Your task to perform on an android device: Search for Italian restaurants on Maps Image 0: 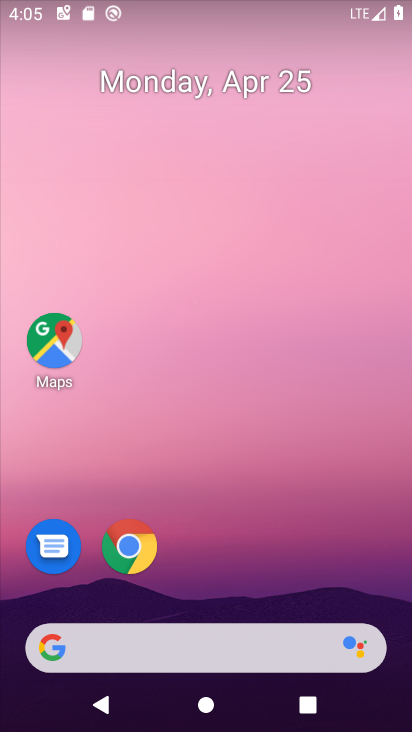
Step 0: drag from (289, 549) to (404, 54)
Your task to perform on an android device: Search for Italian restaurants on Maps Image 1: 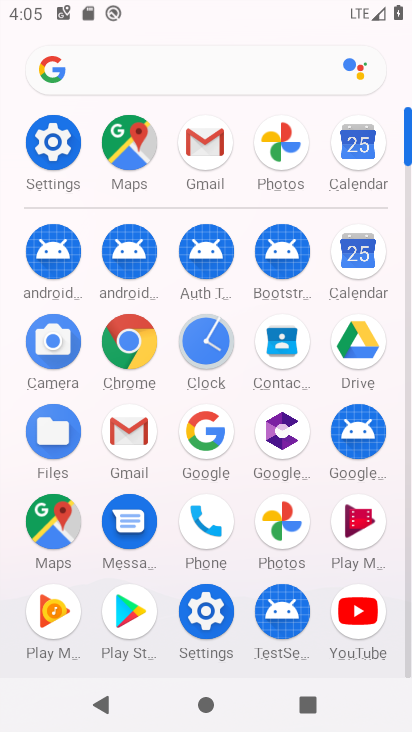
Step 1: click (33, 528)
Your task to perform on an android device: Search for Italian restaurants on Maps Image 2: 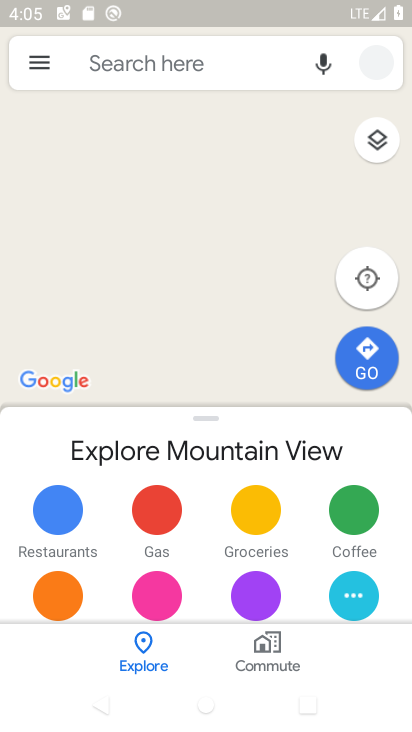
Step 2: click (176, 69)
Your task to perform on an android device: Search for Italian restaurants on Maps Image 3: 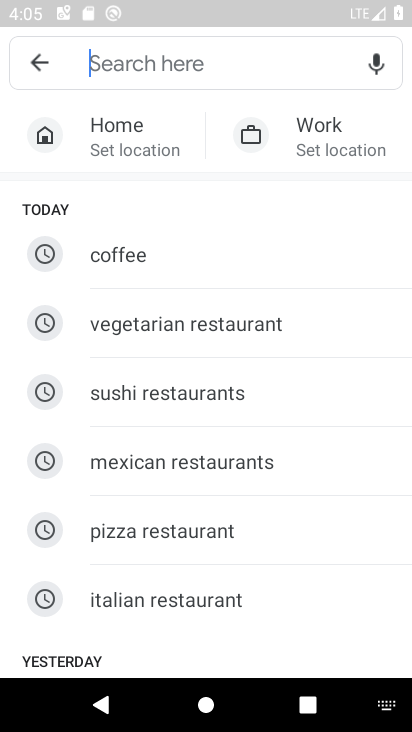
Step 3: type "italian restaurants"
Your task to perform on an android device: Search for Italian restaurants on Maps Image 4: 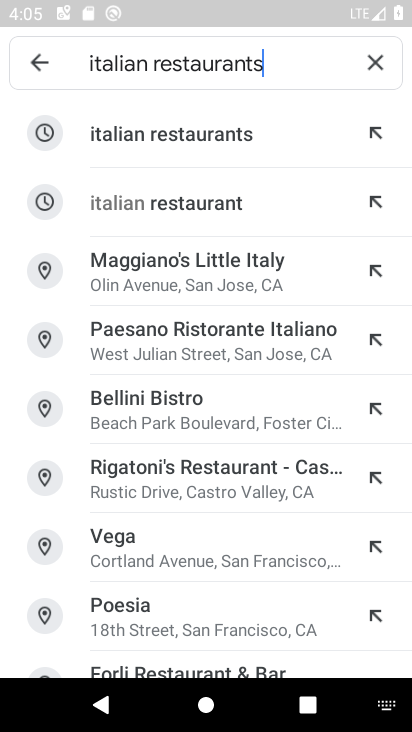
Step 4: click (208, 150)
Your task to perform on an android device: Search for Italian restaurants on Maps Image 5: 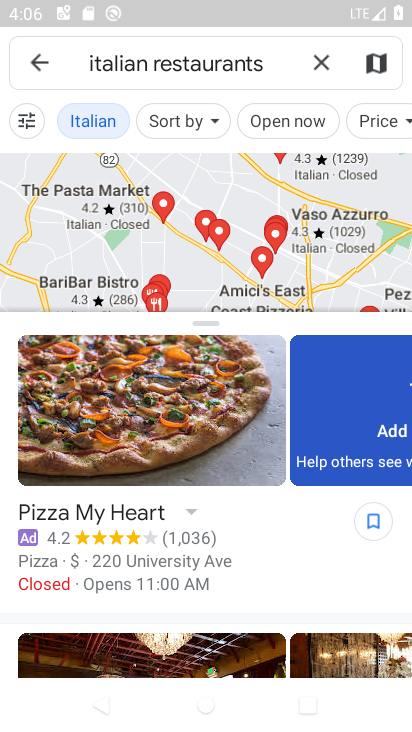
Step 5: task complete